Your task to perform on an android device: Go to network settings Image 0: 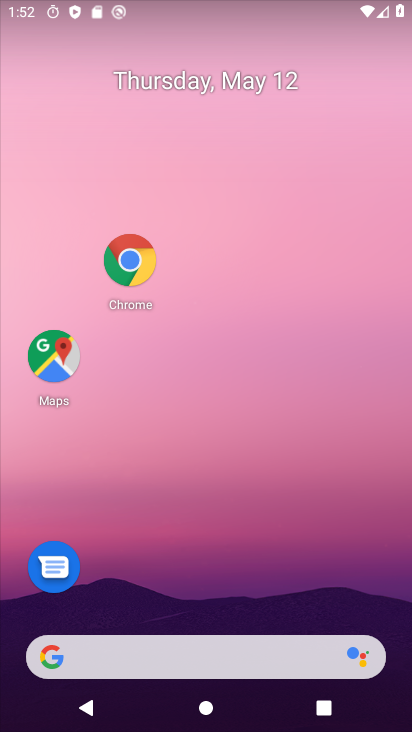
Step 0: drag from (193, 635) to (263, 213)
Your task to perform on an android device: Go to network settings Image 1: 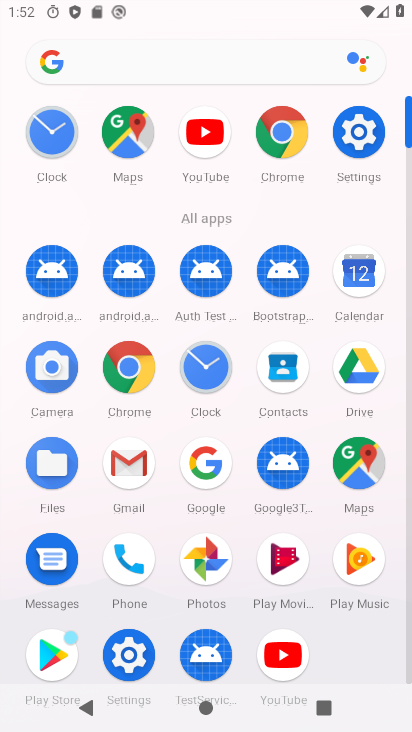
Step 1: click (352, 142)
Your task to perform on an android device: Go to network settings Image 2: 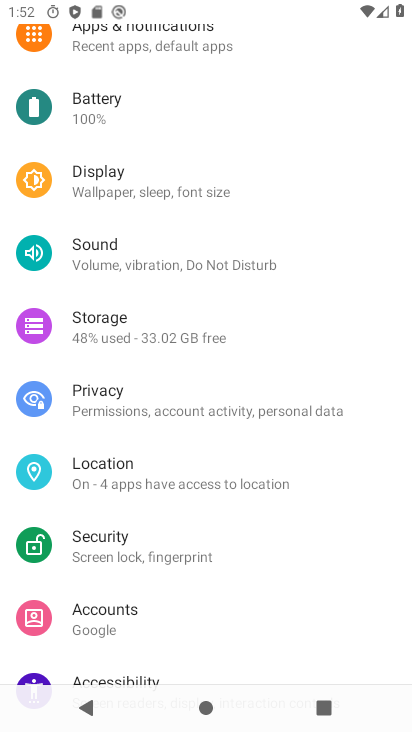
Step 2: drag from (204, 430) to (204, 512)
Your task to perform on an android device: Go to network settings Image 3: 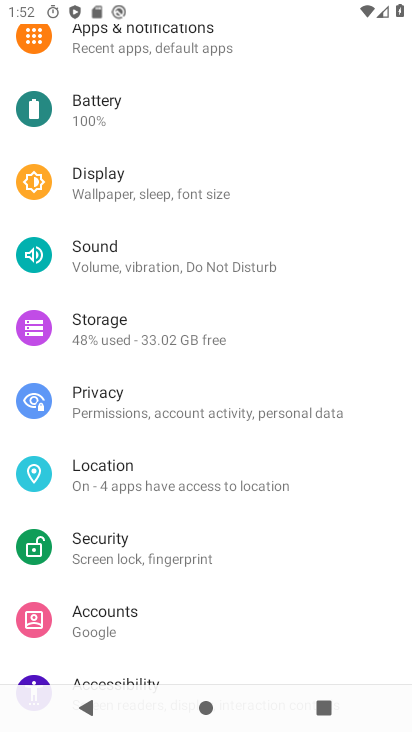
Step 3: drag from (227, 78) to (274, 566)
Your task to perform on an android device: Go to network settings Image 4: 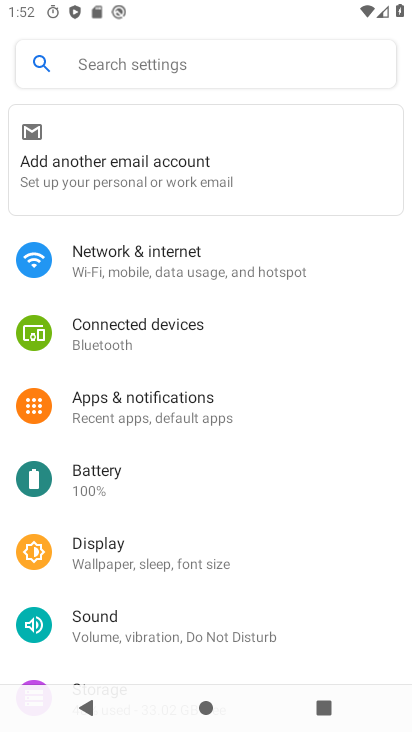
Step 4: click (154, 266)
Your task to perform on an android device: Go to network settings Image 5: 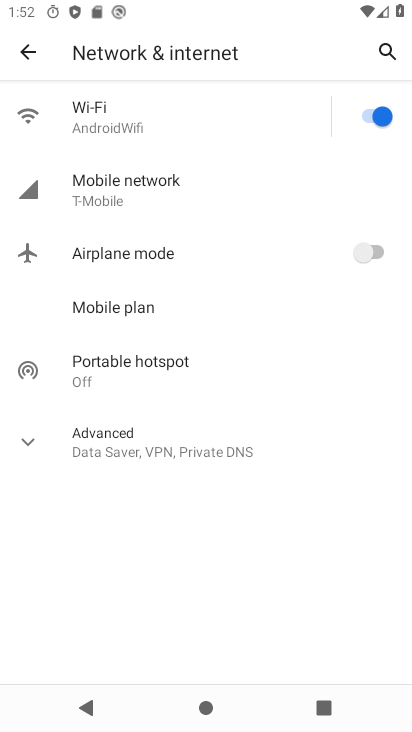
Step 5: click (141, 443)
Your task to perform on an android device: Go to network settings Image 6: 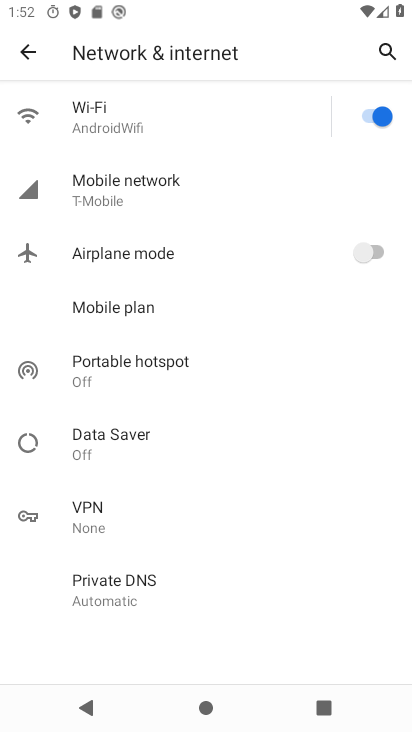
Step 6: task complete